Your task to perform on an android device: visit the assistant section in the google photos Image 0: 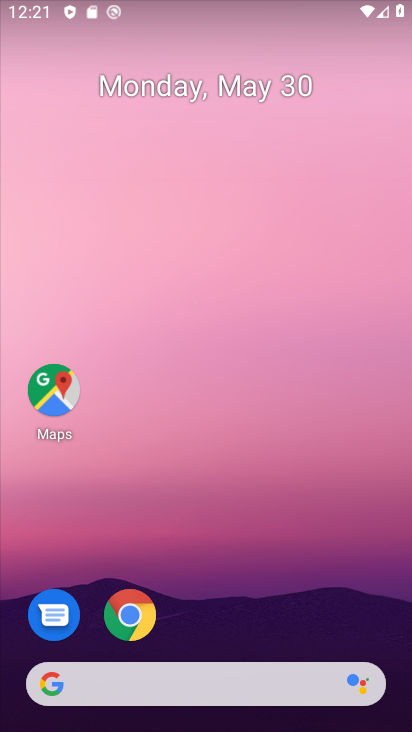
Step 0: drag from (221, 580) to (271, 52)
Your task to perform on an android device: visit the assistant section in the google photos Image 1: 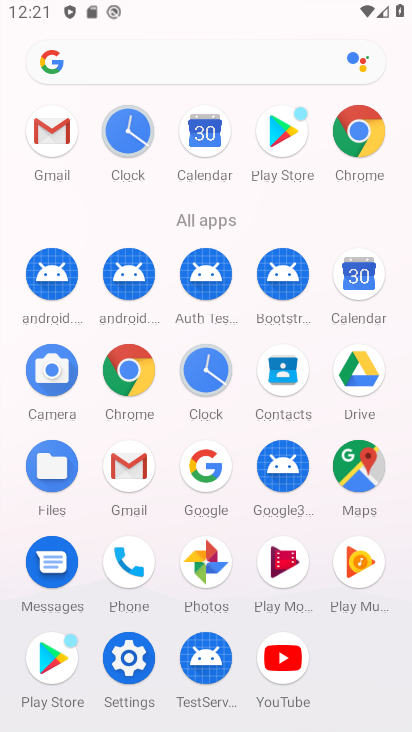
Step 1: click (208, 563)
Your task to perform on an android device: visit the assistant section in the google photos Image 2: 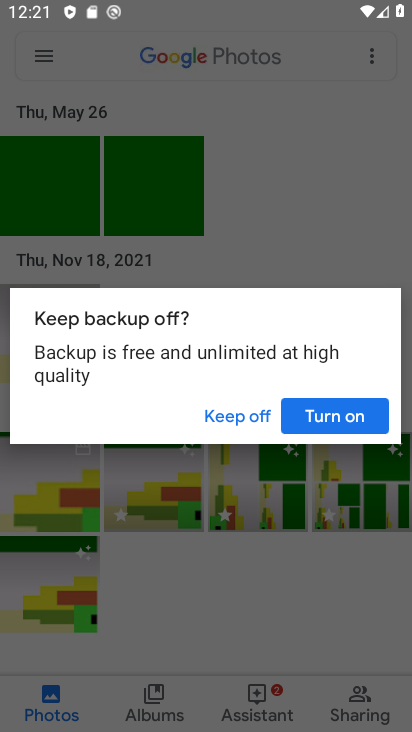
Step 2: click (218, 408)
Your task to perform on an android device: visit the assistant section in the google photos Image 3: 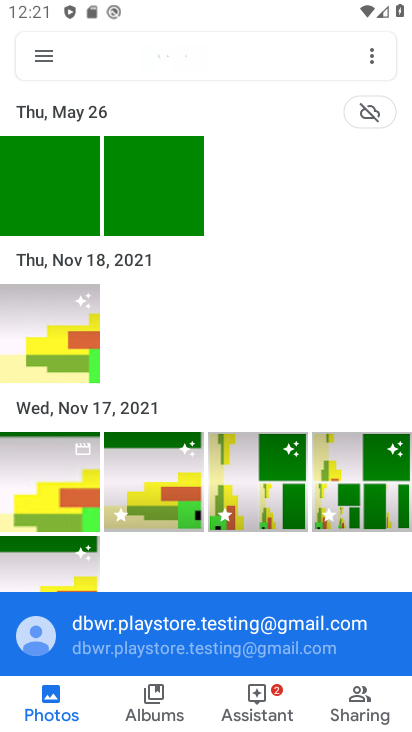
Step 3: click (254, 699)
Your task to perform on an android device: visit the assistant section in the google photos Image 4: 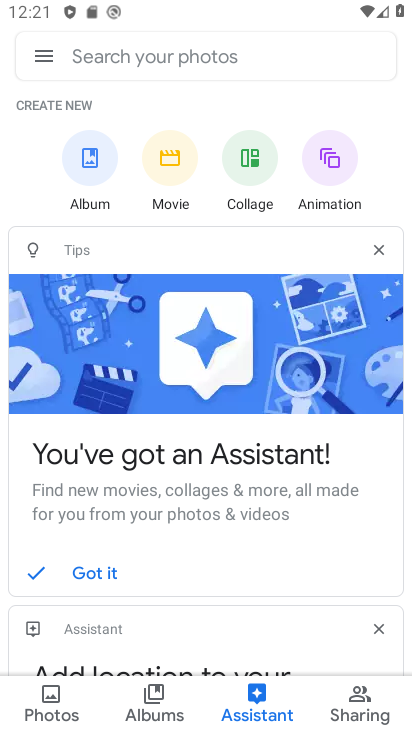
Step 4: task complete